Your task to perform on an android device: toggle show notifications on the lock screen Image 0: 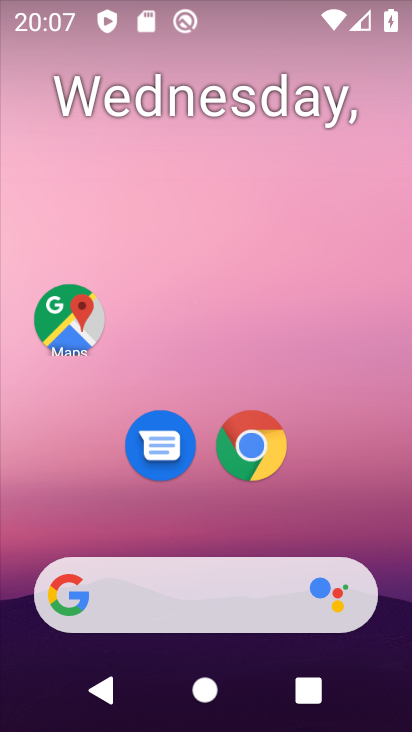
Step 0: drag from (306, 521) to (324, 234)
Your task to perform on an android device: toggle show notifications on the lock screen Image 1: 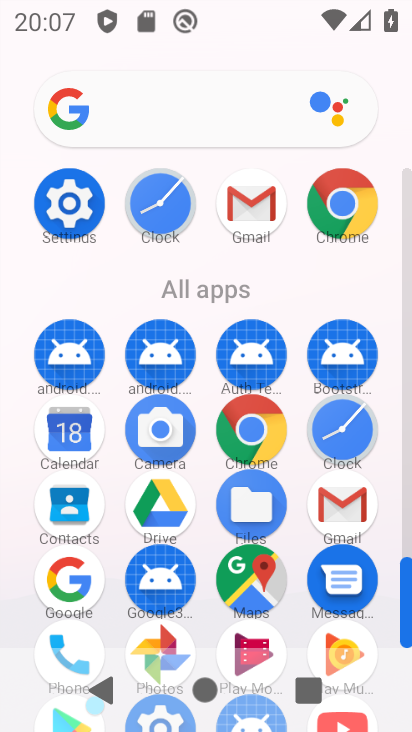
Step 1: click (82, 204)
Your task to perform on an android device: toggle show notifications on the lock screen Image 2: 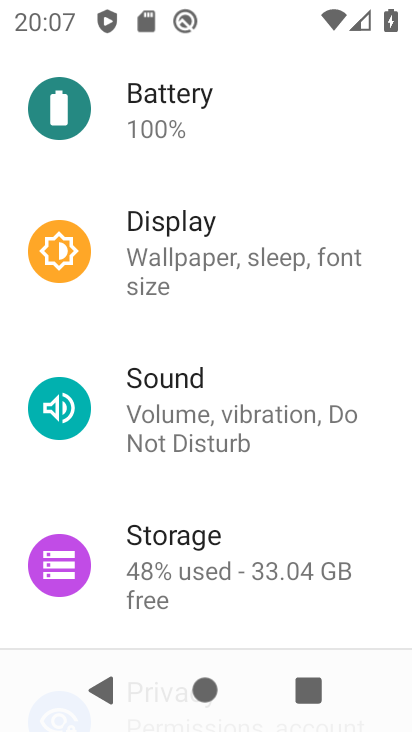
Step 2: drag from (235, 175) to (210, 612)
Your task to perform on an android device: toggle show notifications on the lock screen Image 3: 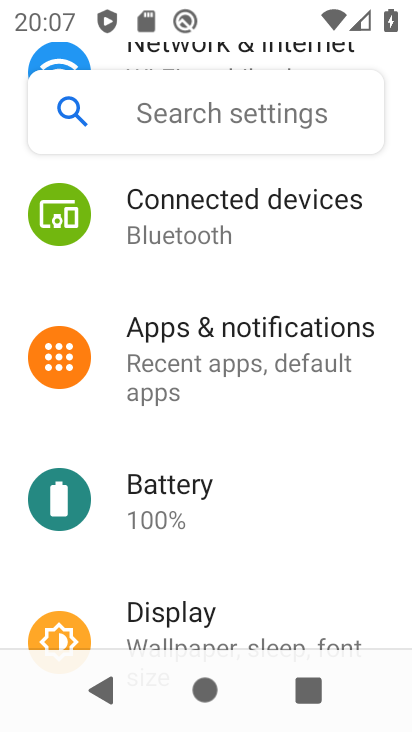
Step 3: drag from (190, 238) to (204, 457)
Your task to perform on an android device: toggle show notifications on the lock screen Image 4: 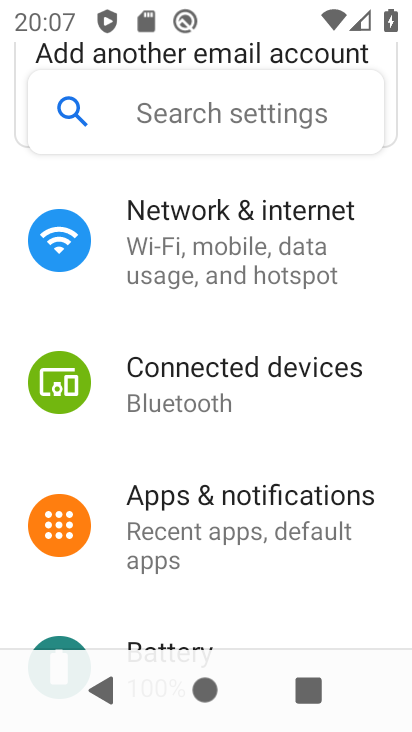
Step 4: click (215, 523)
Your task to perform on an android device: toggle show notifications on the lock screen Image 5: 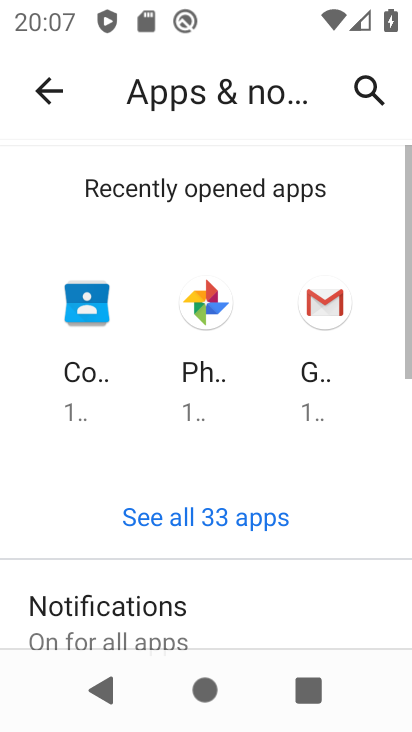
Step 5: drag from (140, 585) to (206, 247)
Your task to perform on an android device: toggle show notifications on the lock screen Image 6: 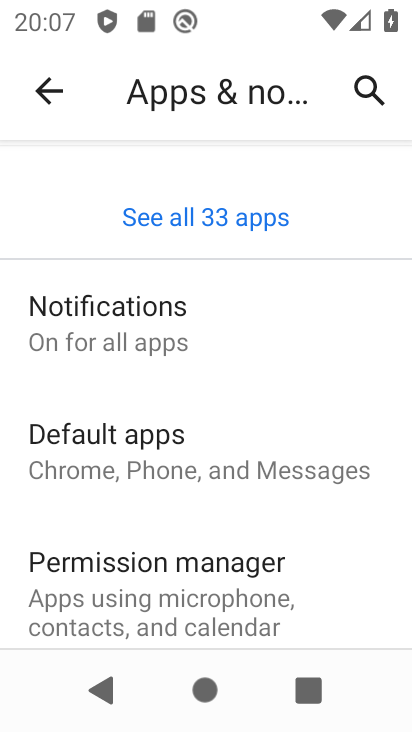
Step 6: click (121, 318)
Your task to perform on an android device: toggle show notifications on the lock screen Image 7: 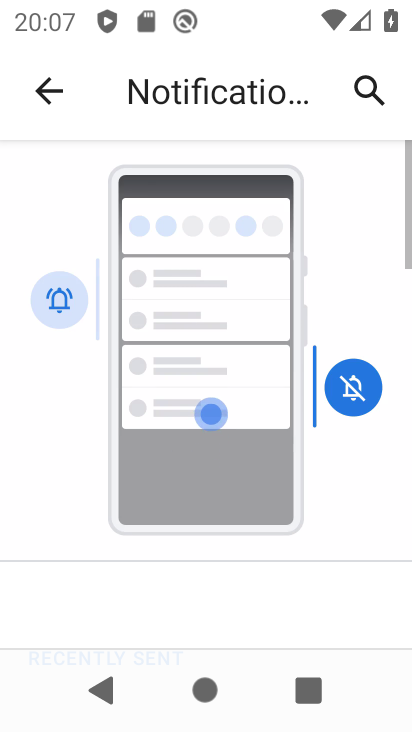
Step 7: drag from (220, 580) to (314, 167)
Your task to perform on an android device: toggle show notifications on the lock screen Image 8: 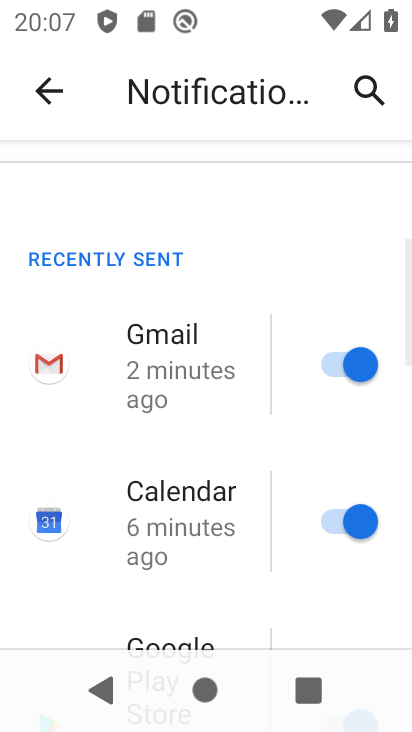
Step 8: drag from (220, 336) to (242, 202)
Your task to perform on an android device: toggle show notifications on the lock screen Image 9: 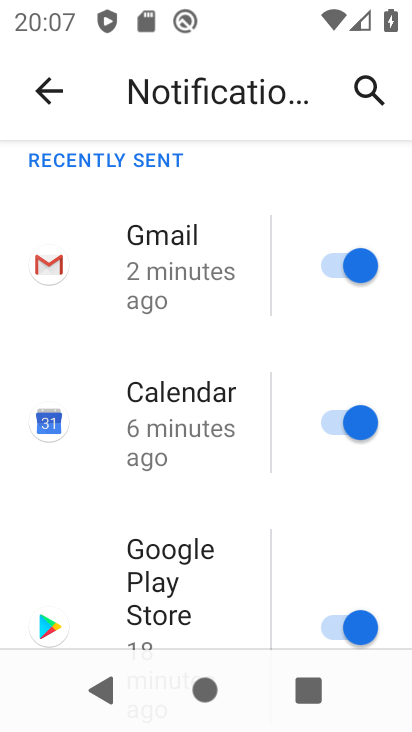
Step 9: drag from (147, 584) to (281, 152)
Your task to perform on an android device: toggle show notifications on the lock screen Image 10: 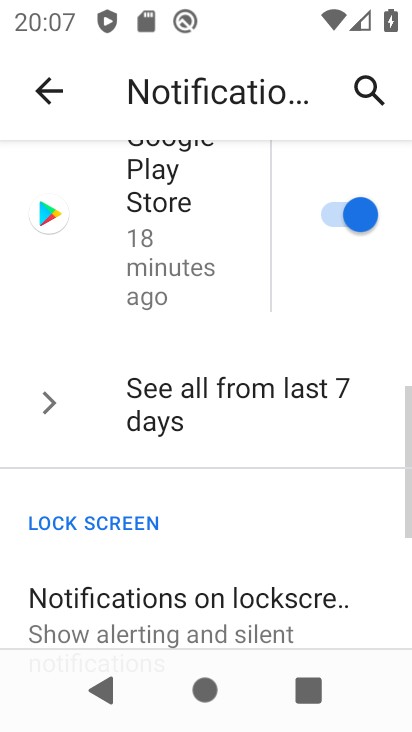
Step 10: drag from (177, 593) to (269, 366)
Your task to perform on an android device: toggle show notifications on the lock screen Image 11: 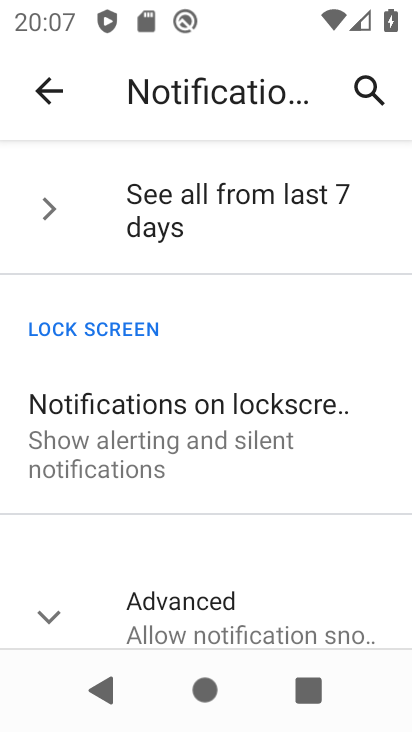
Step 11: click (161, 424)
Your task to perform on an android device: toggle show notifications on the lock screen Image 12: 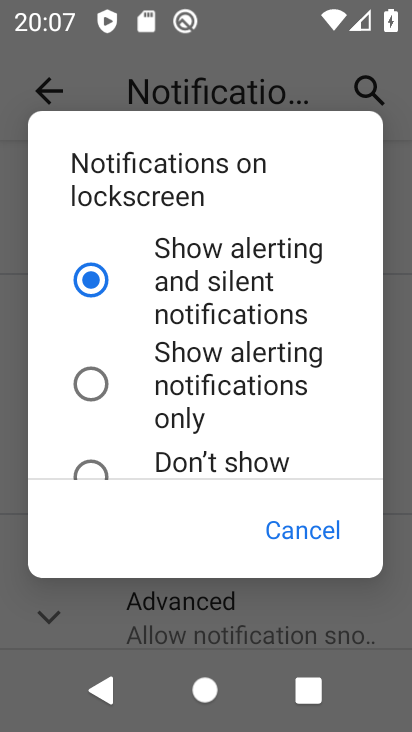
Step 12: click (154, 394)
Your task to perform on an android device: toggle show notifications on the lock screen Image 13: 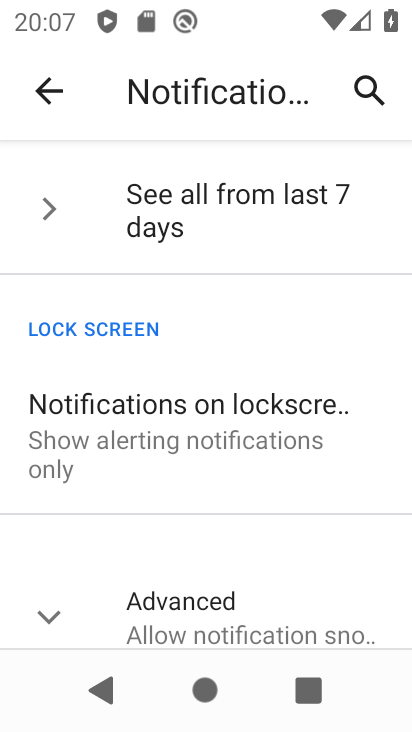
Step 13: task complete